Your task to perform on an android device: toggle sleep mode Image 0: 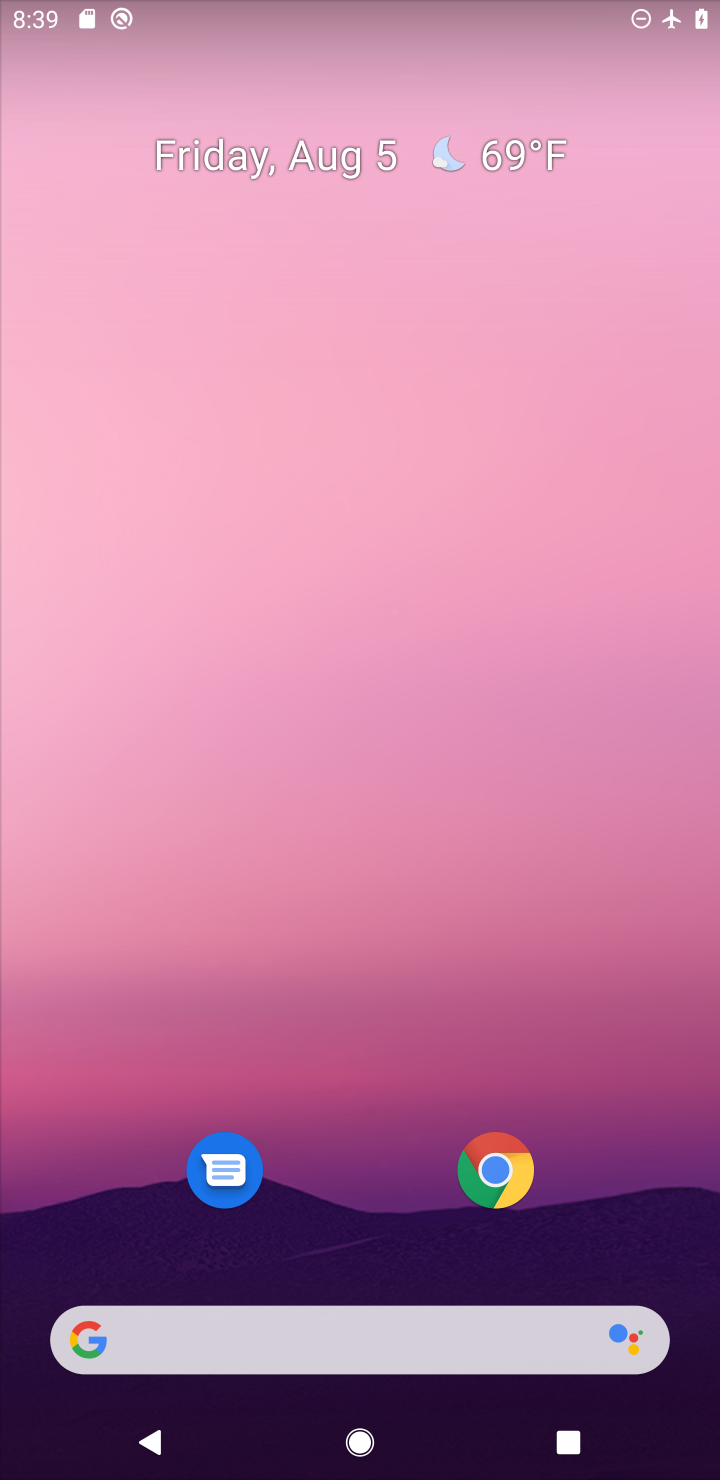
Step 0: drag from (642, 1229) to (545, 407)
Your task to perform on an android device: toggle sleep mode Image 1: 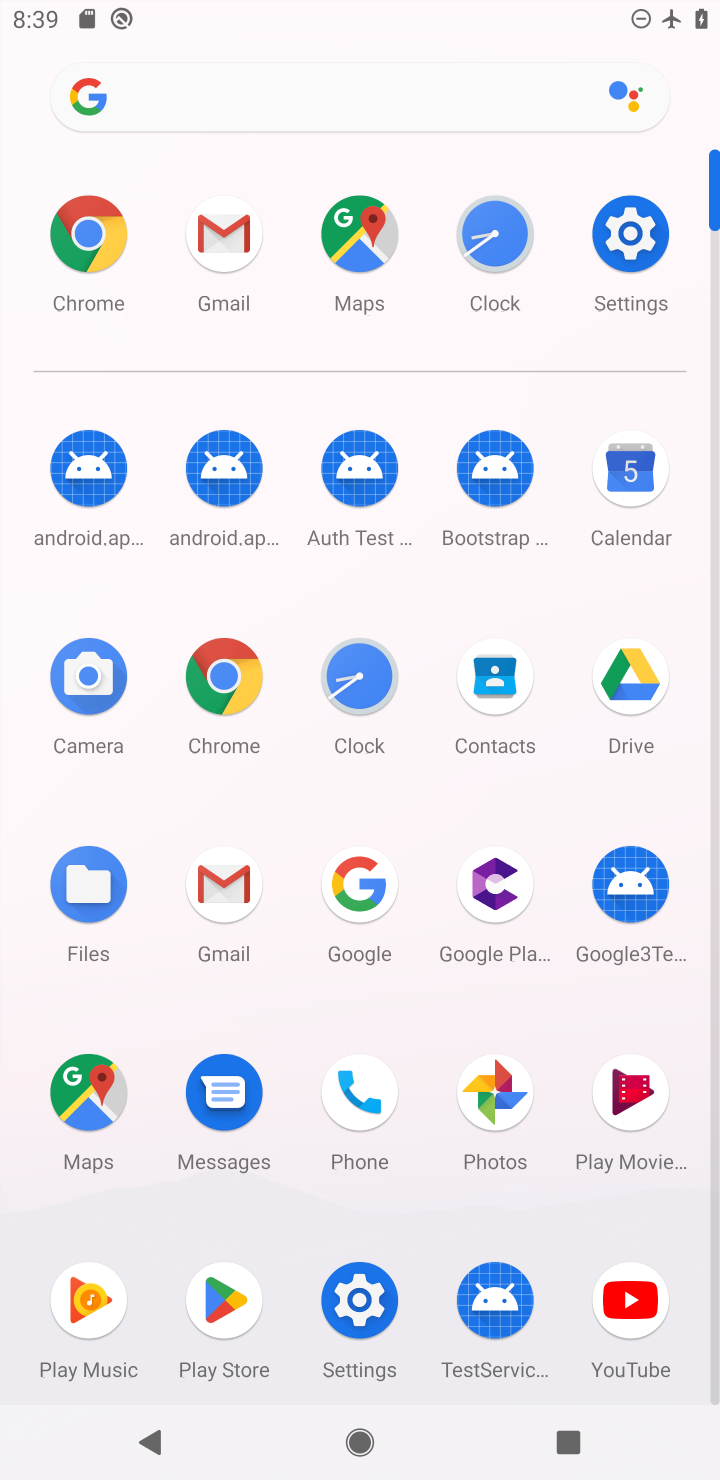
Step 1: click (359, 1299)
Your task to perform on an android device: toggle sleep mode Image 2: 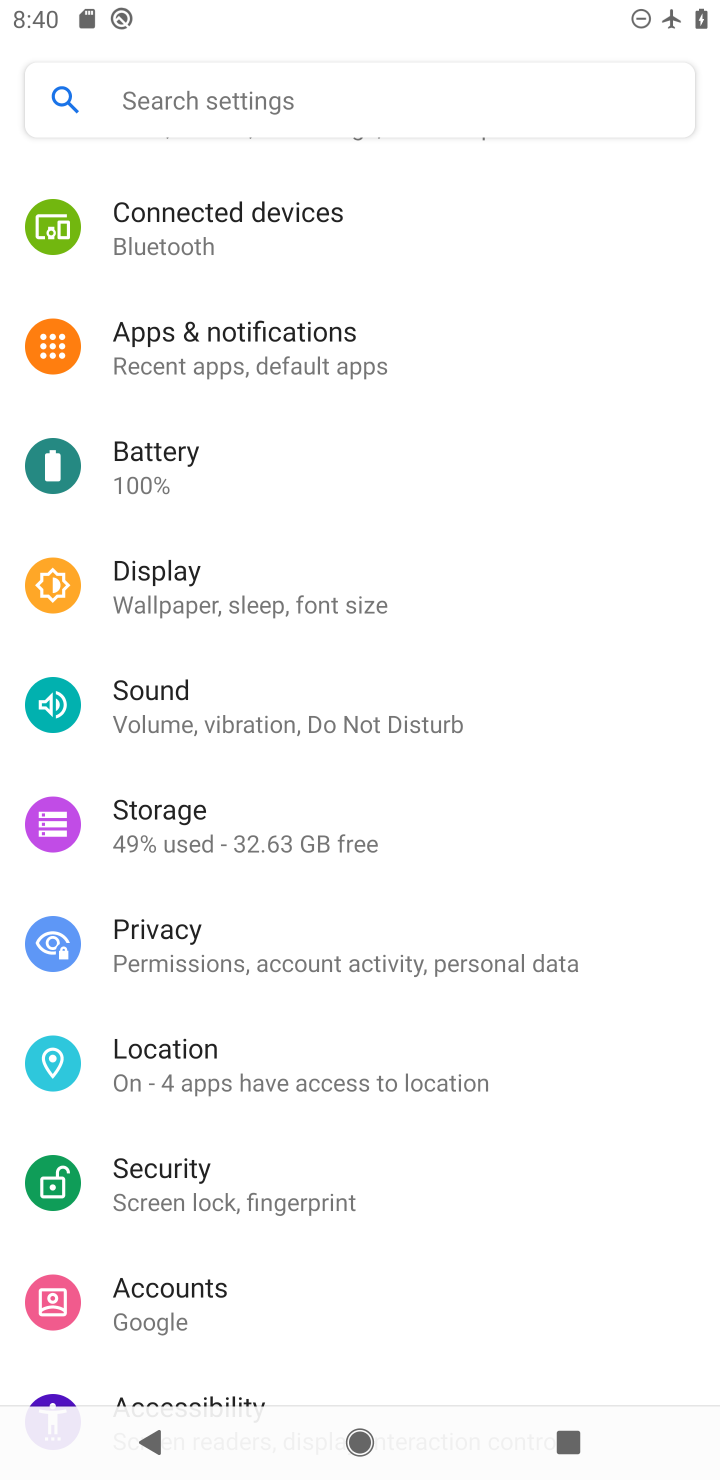
Step 2: click (161, 567)
Your task to perform on an android device: toggle sleep mode Image 3: 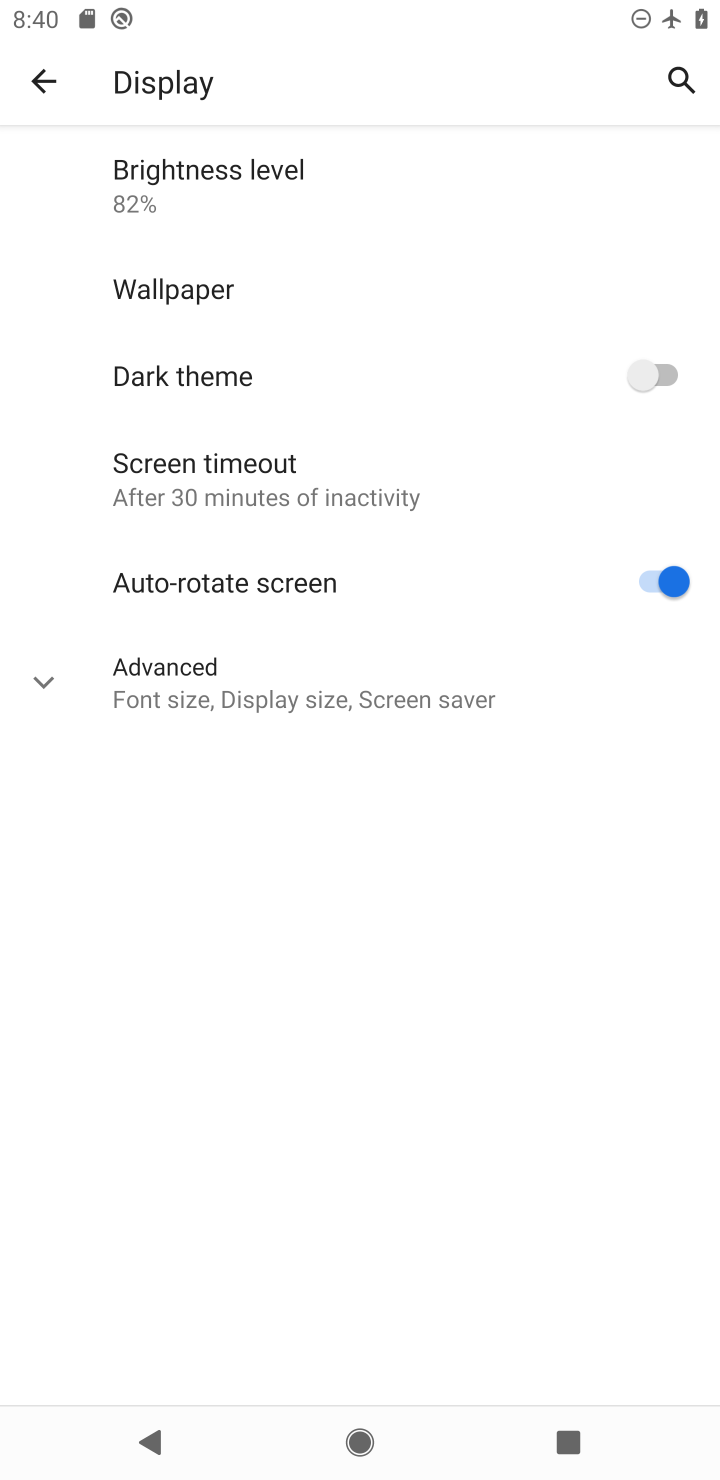
Step 3: click (34, 678)
Your task to perform on an android device: toggle sleep mode Image 4: 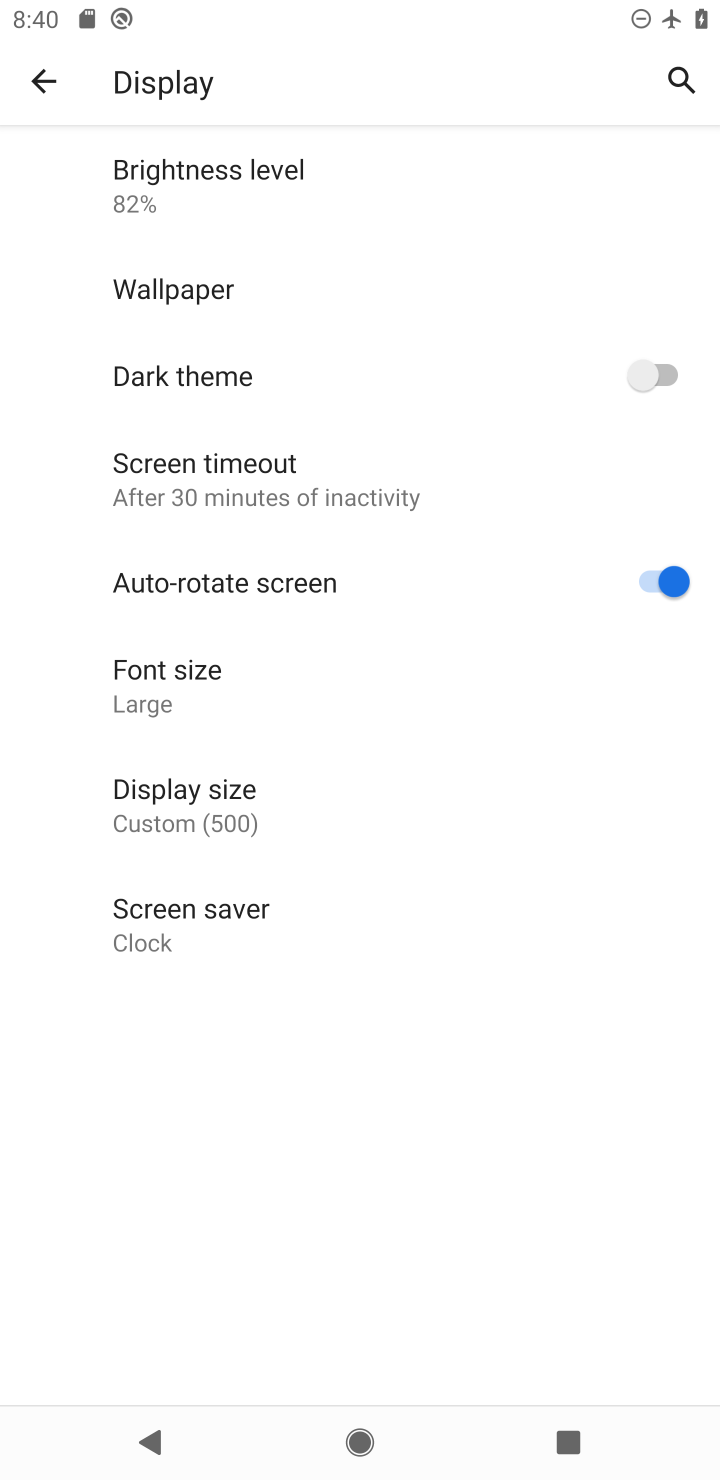
Step 4: task complete